Your task to perform on an android device: Search for the new lego star wars 2021 on Target Image 0: 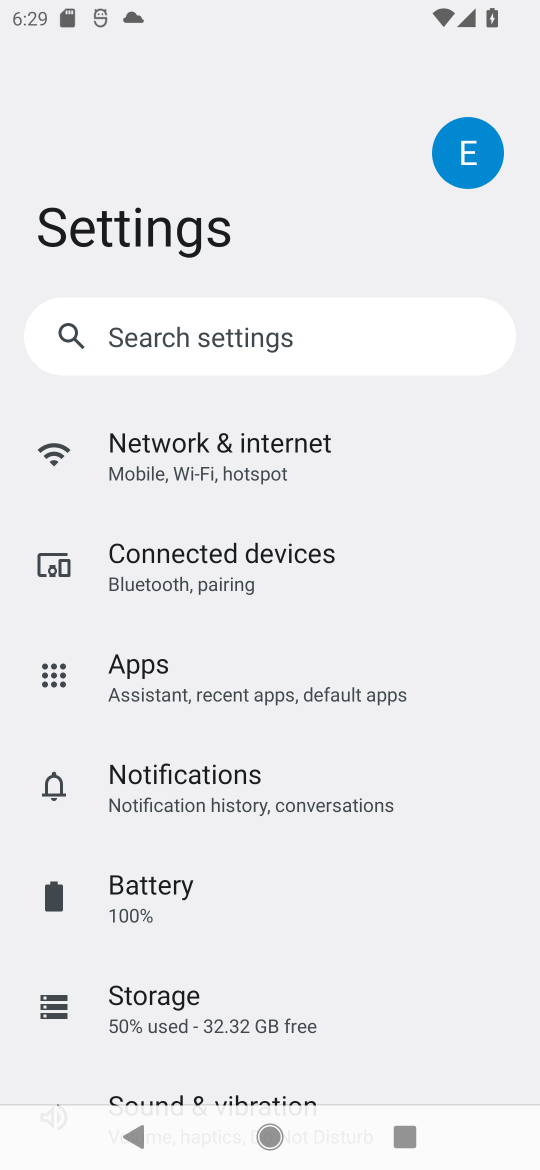
Step 0: press home button
Your task to perform on an android device: Search for the new lego star wars 2021 on Target Image 1: 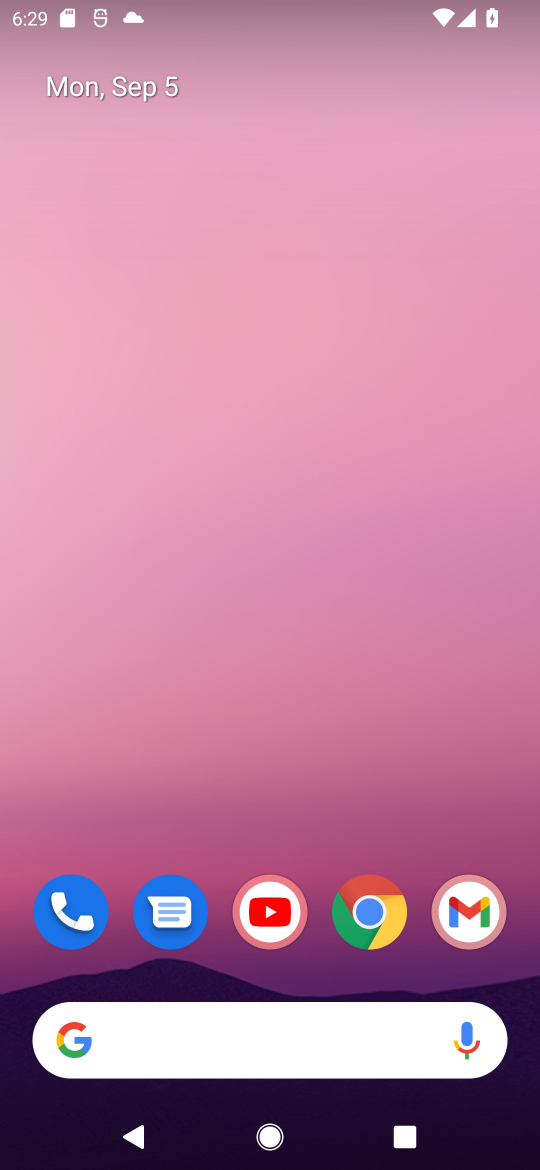
Step 1: click (363, 903)
Your task to perform on an android device: Search for the new lego star wars 2021 on Target Image 2: 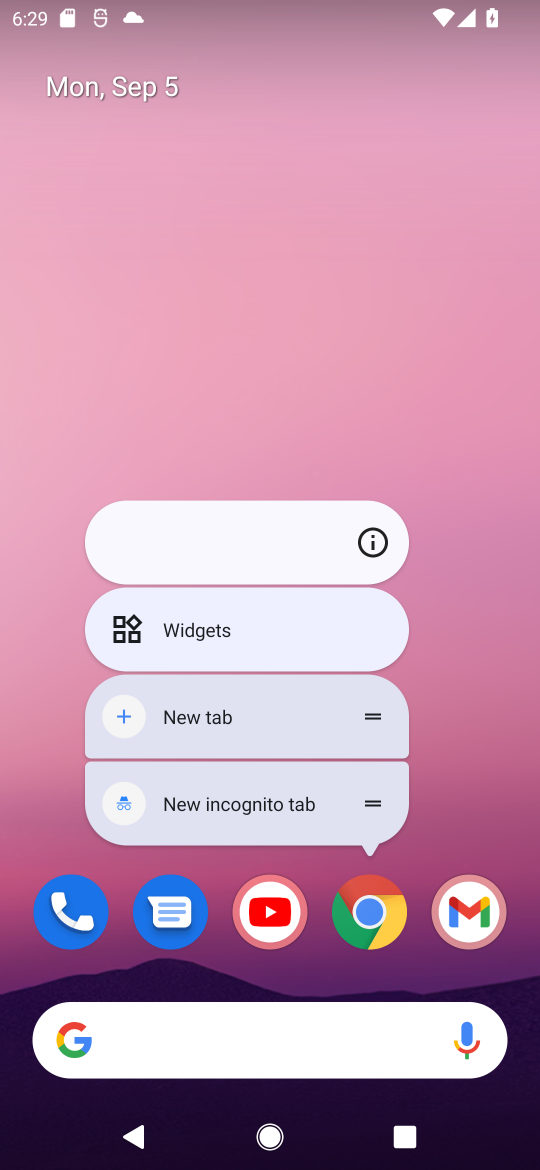
Step 2: click (363, 904)
Your task to perform on an android device: Search for the new lego star wars 2021 on Target Image 3: 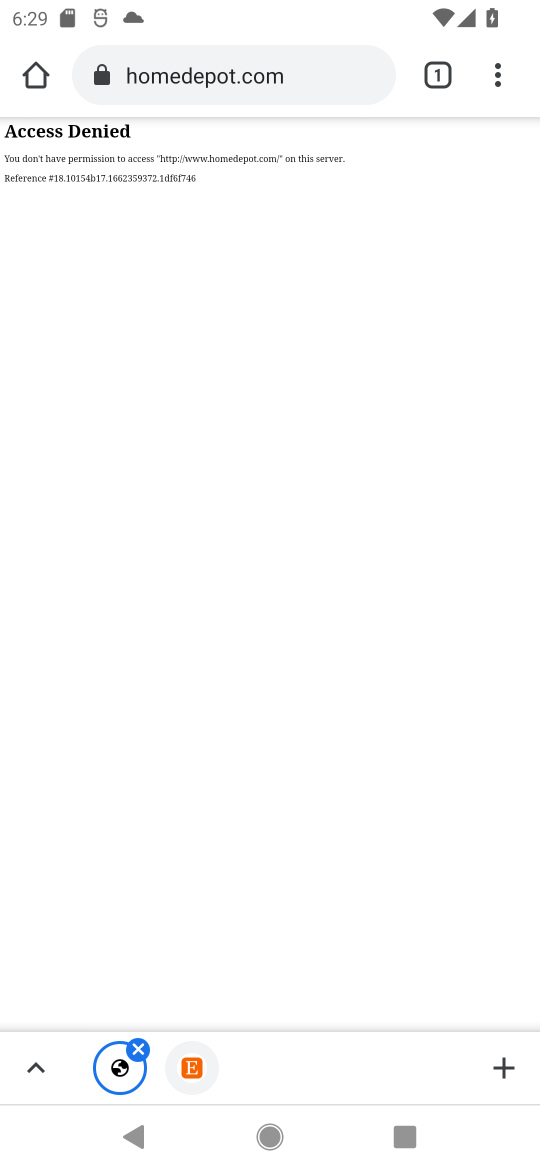
Step 3: click (129, 74)
Your task to perform on an android device: Search for the new lego star wars 2021 on Target Image 4: 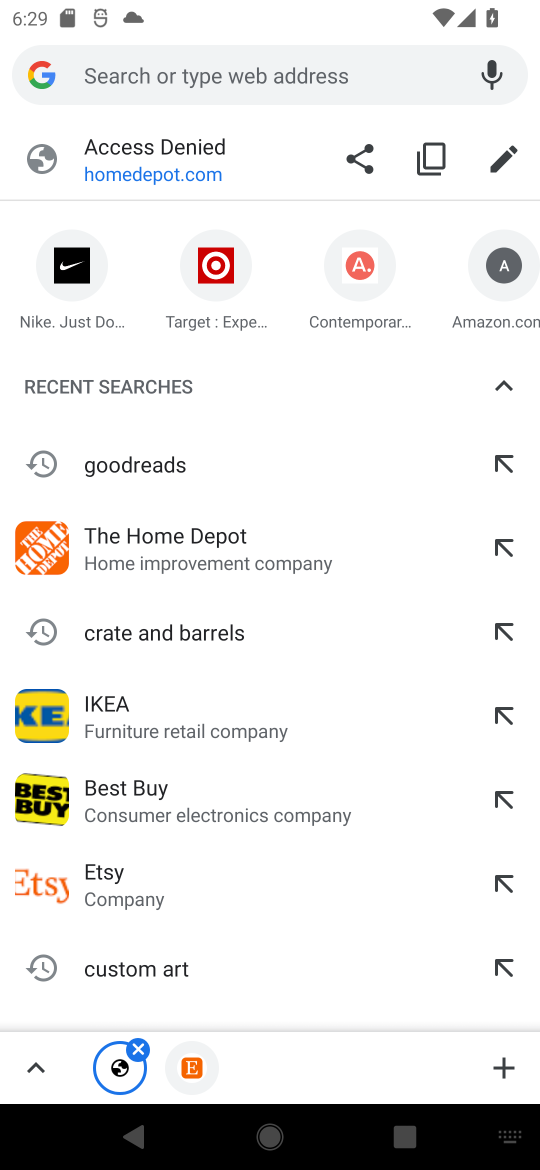
Step 4: type "Target"
Your task to perform on an android device: Search for the new lego star wars 2021 on Target Image 5: 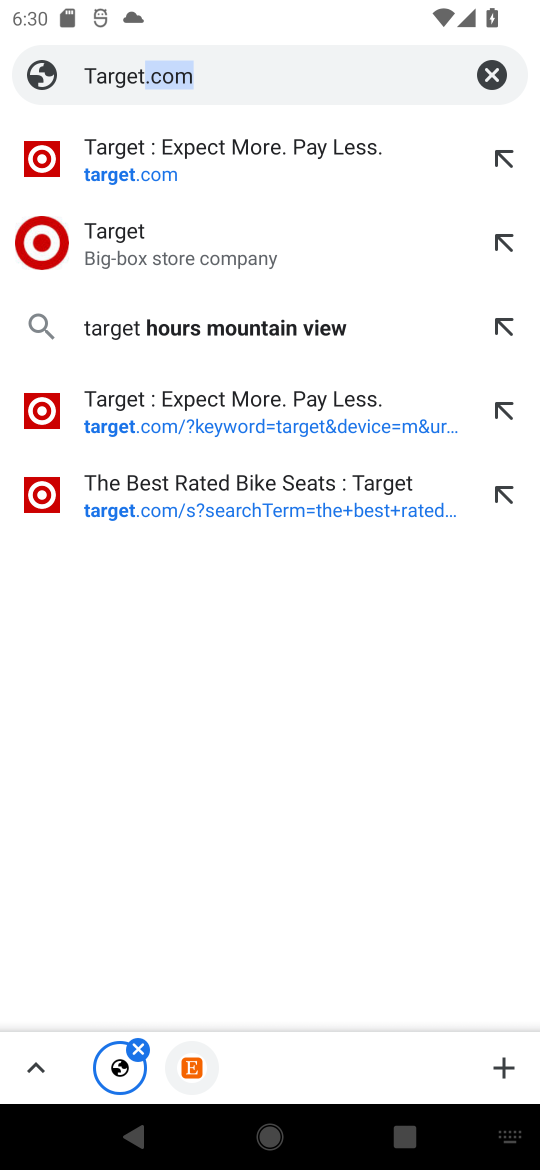
Step 5: click (219, 159)
Your task to perform on an android device: Search for the new lego star wars 2021 on Target Image 6: 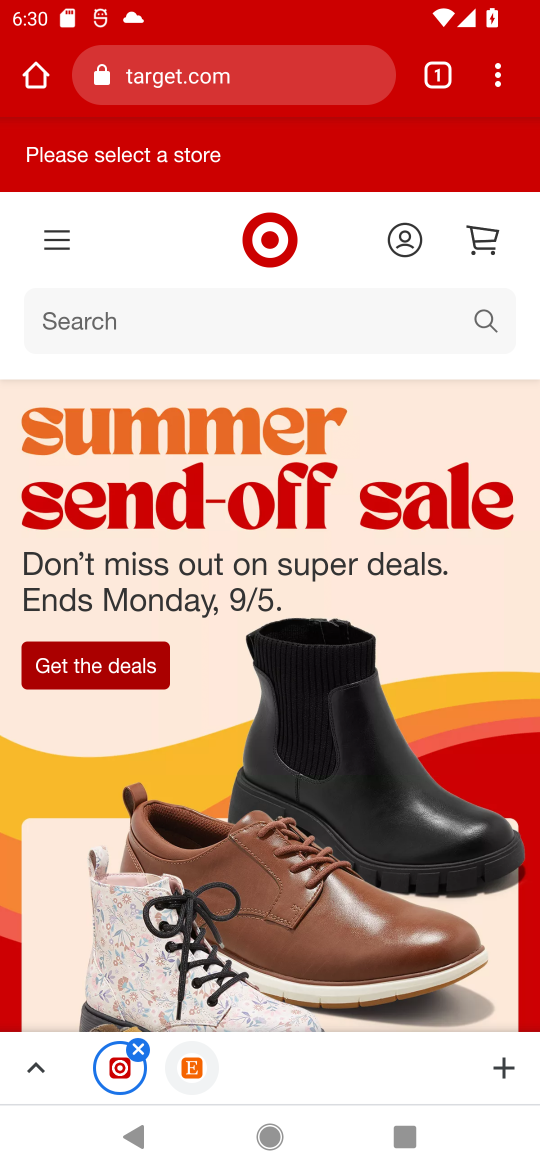
Step 6: click (283, 319)
Your task to perform on an android device: Search for the new lego star wars 2021 on Target Image 7: 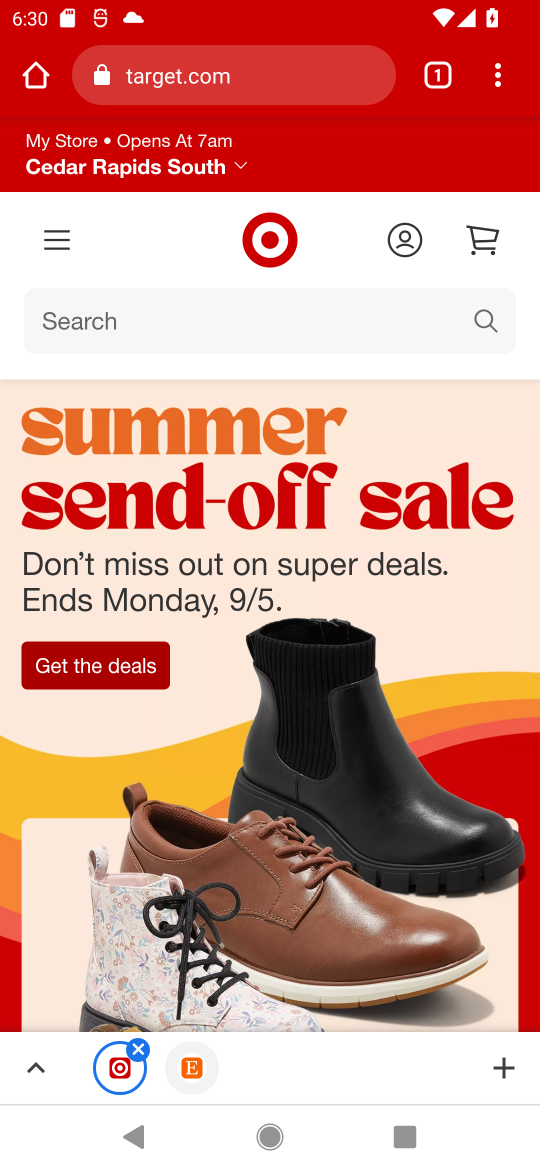
Step 7: click (228, 306)
Your task to perform on an android device: Search for the new lego star wars 2021 on Target Image 8: 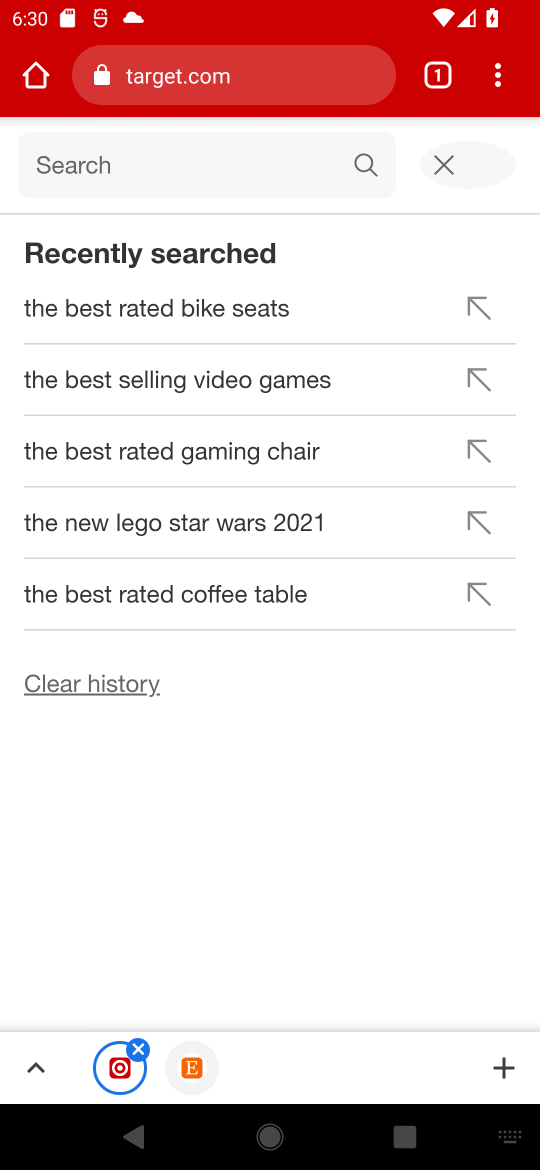
Step 8: type "the new lego star wars 2021"
Your task to perform on an android device: Search for the new lego star wars 2021 on Target Image 9: 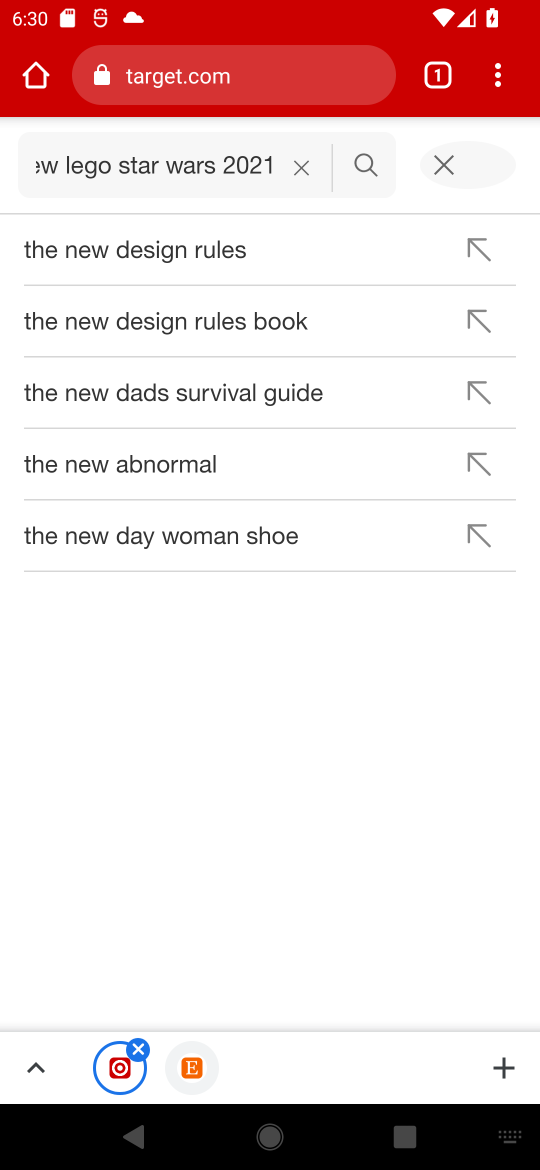
Step 9: click (369, 166)
Your task to perform on an android device: Search for the new lego star wars 2021 on Target Image 10: 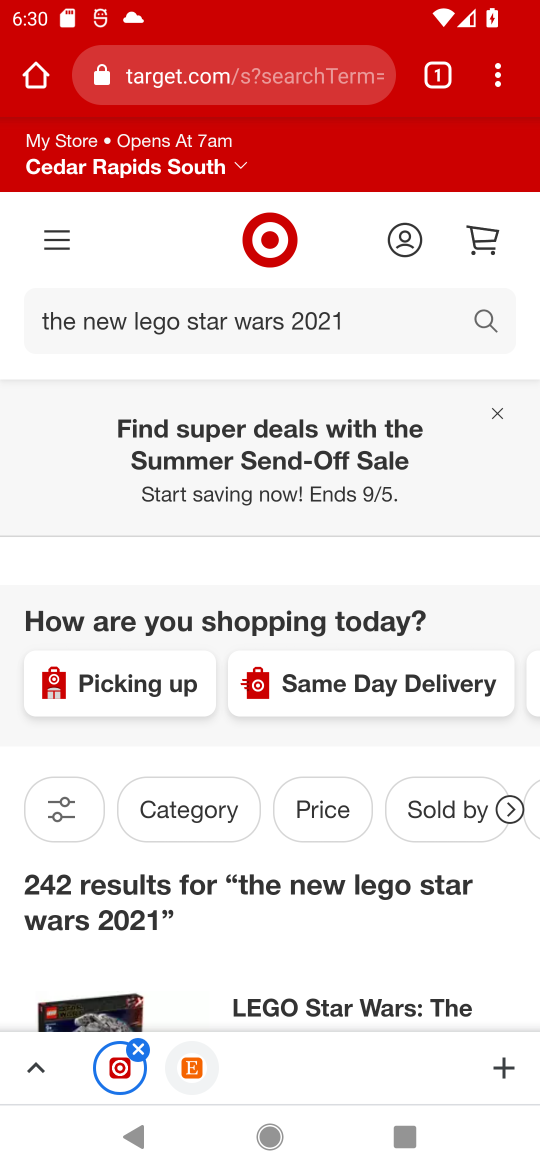
Step 10: task complete